Your task to perform on an android device: Go to Yahoo.com Image 0: 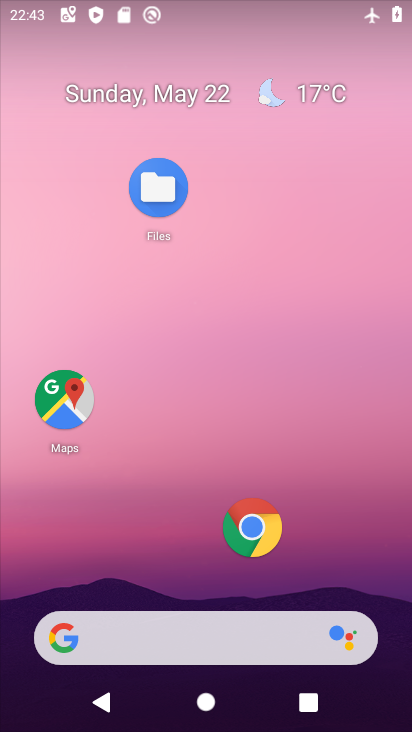
Step 0: click (256, 523)
Your task to perform on an android device: Go to Yahoo.com Image 1: 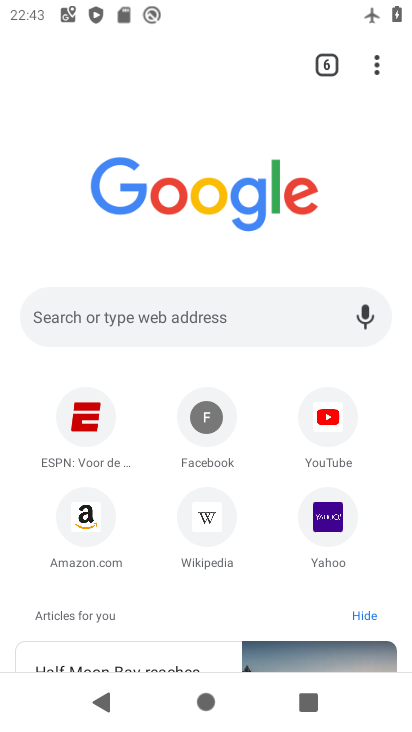
Step 1: click (346, 525)
Your task to perform on an android device: Go to Yahoo.com Image 2: 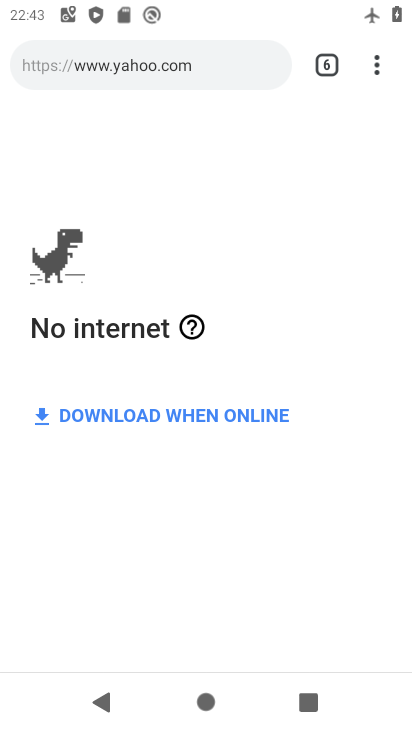
Step 2: task complete